Your task to perform on an android device: turn on airplane mode Image 0: 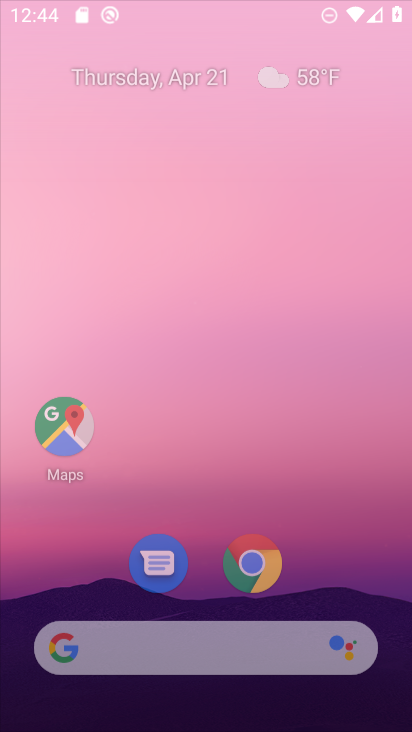
Step 0: click (259, 211)
Your task to perform on an android device: turn on airplane mode Image 1: 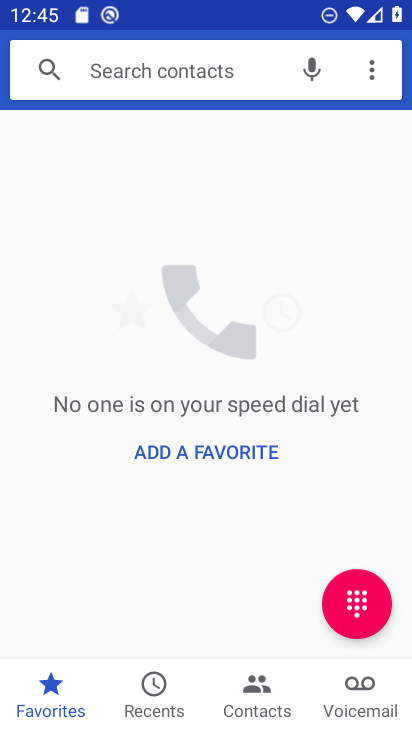
Step 1: press home button
Your task to perform on an android device: turn on airplane mode Image 2: 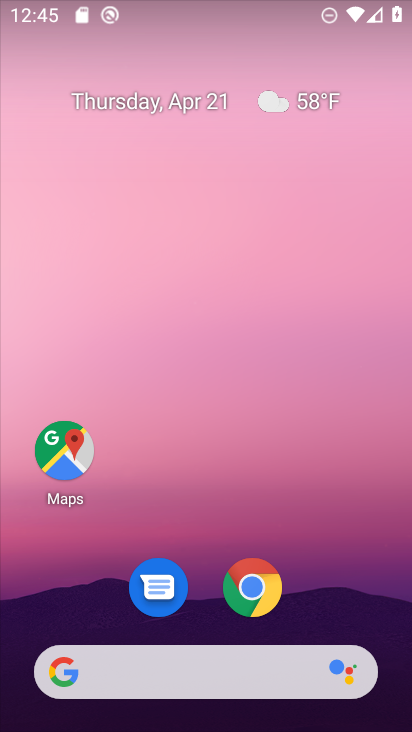
Step 2: drag from (208, 595) to (310, 13)
Your task to perform on an android device: turn on airplane mode Image 3: 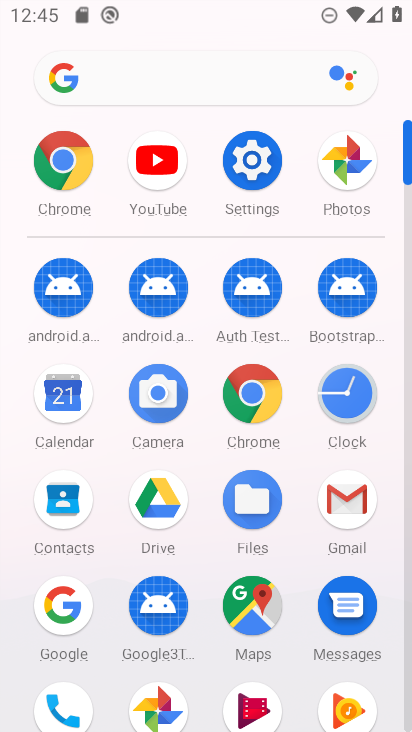
Step 3: click (261, 178)
Your task to perform on an android device: turn on airplane mode Image 4: 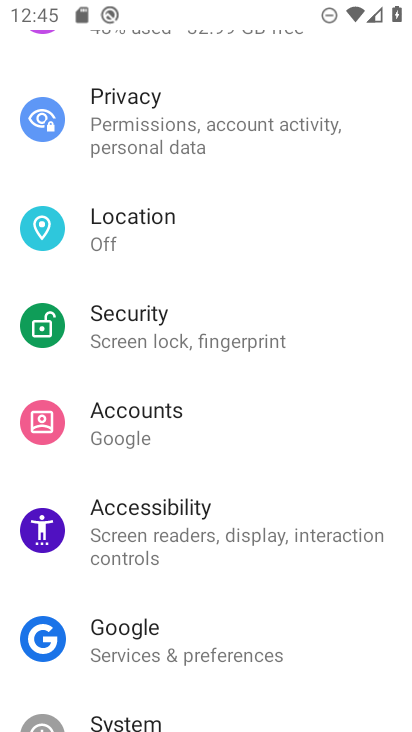
Step 4: drag from (236, 163) to (169, 723)
Your task to perform on an android device: turn on airplane mode Image 5: 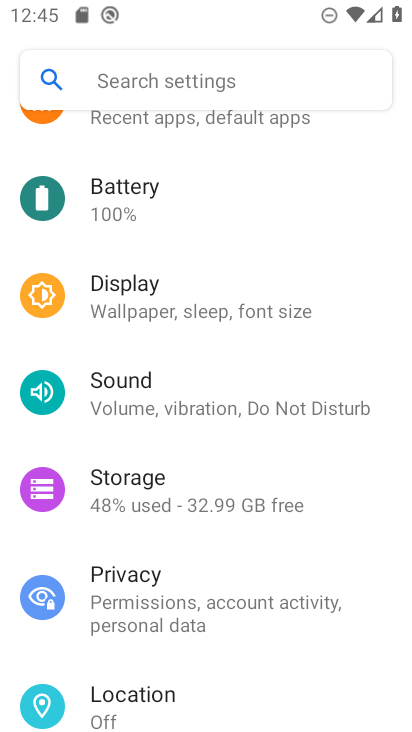
Step 5: drag from (243, 217) to (182, 730)
Your task to perform on an android device: turn on airplane mode Image 6: 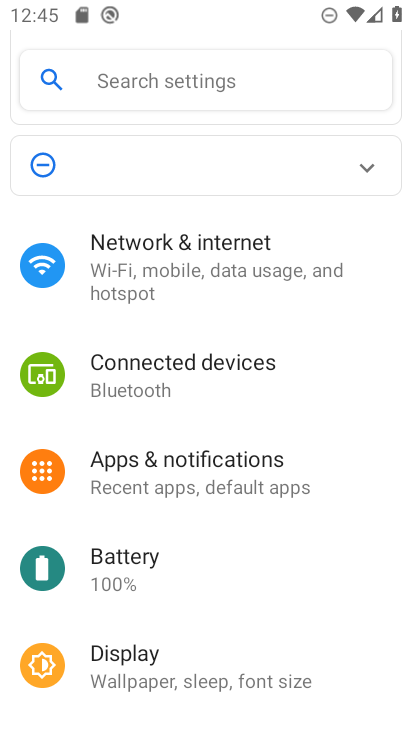
Step 6: click (157, 287)
Your task to perform on an android device: turn on airplane mode Image 7: 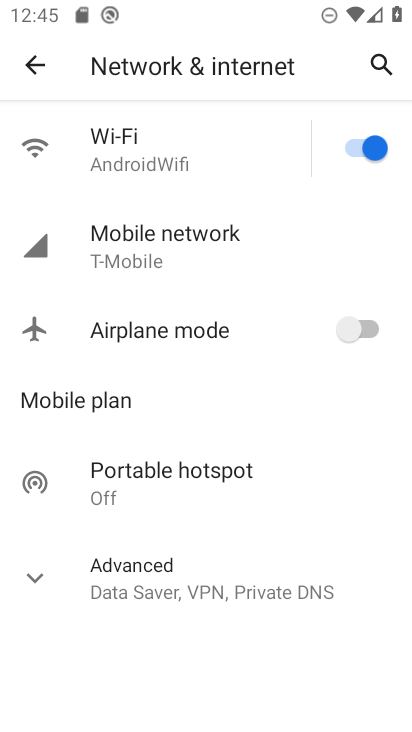
Step 7: click (368, 324)
Your task to perform on an android device: turn on airplane mode Image 8: 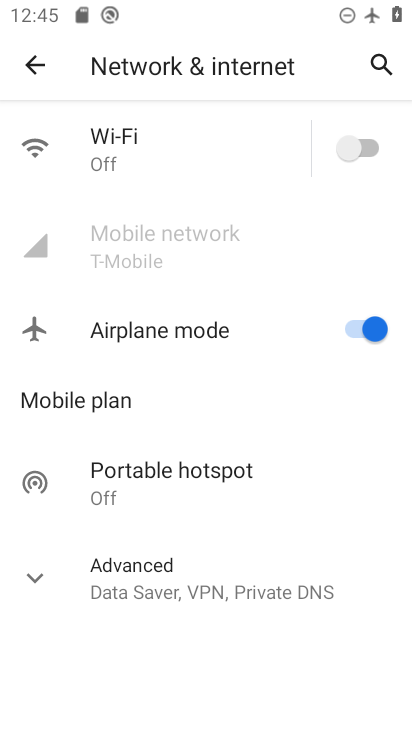
Step 8: task complete